Your task to perform on an android device: turn off javascript in the chrome app Image 0: 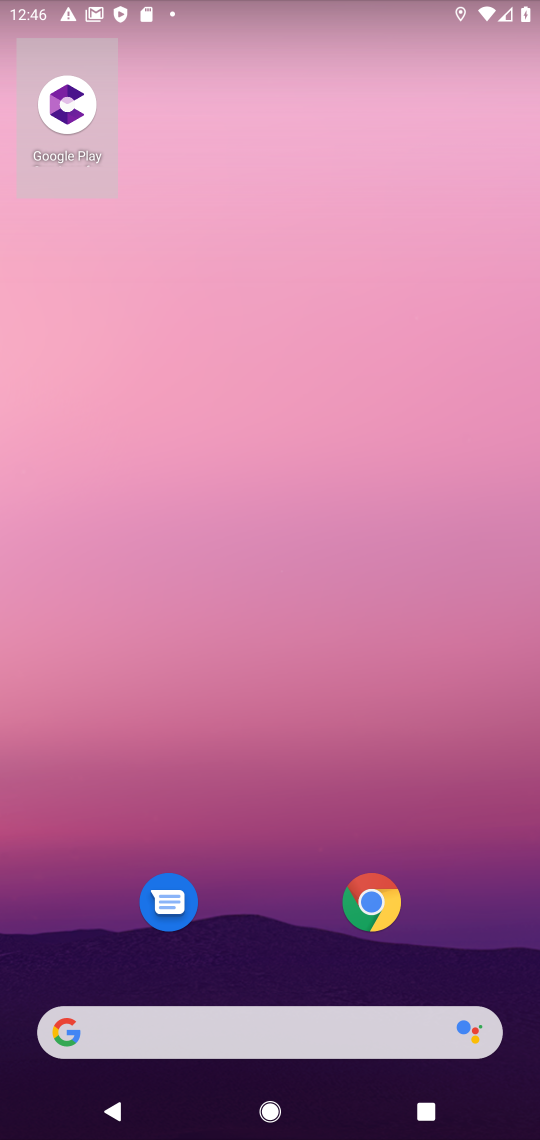
Step 0: click (359, 907)
Your task to perform on an android device: turn off javascript in the chrome app Image 1: 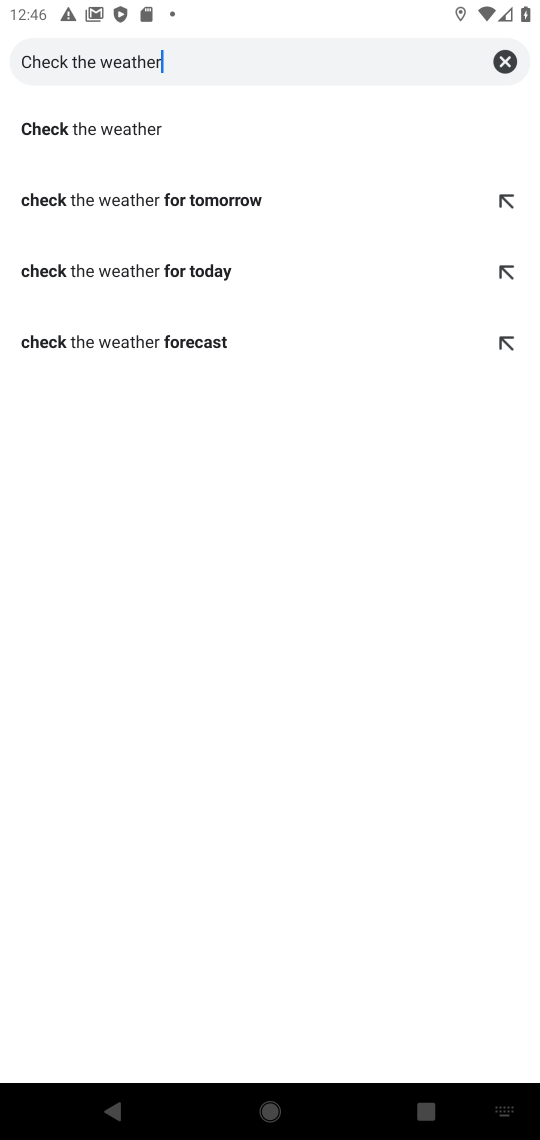
Step 1: press home button
Your task to perform on an android device: turn off javascript in the chrome app Image 2: 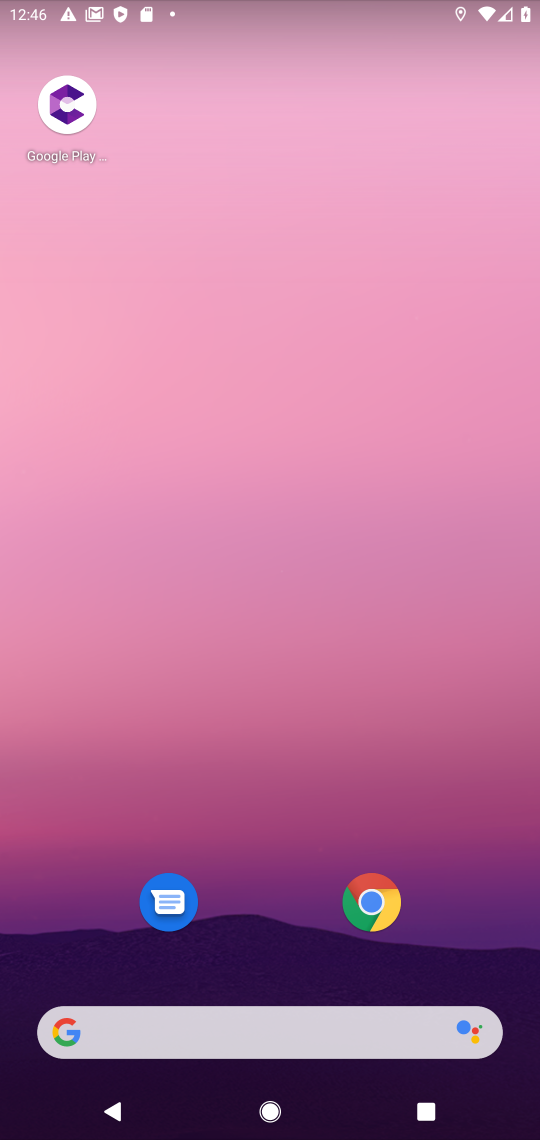
Step 2: click (380, 903)
Your task to perform on an android device: turn off javascript in the chrome app Image 3: 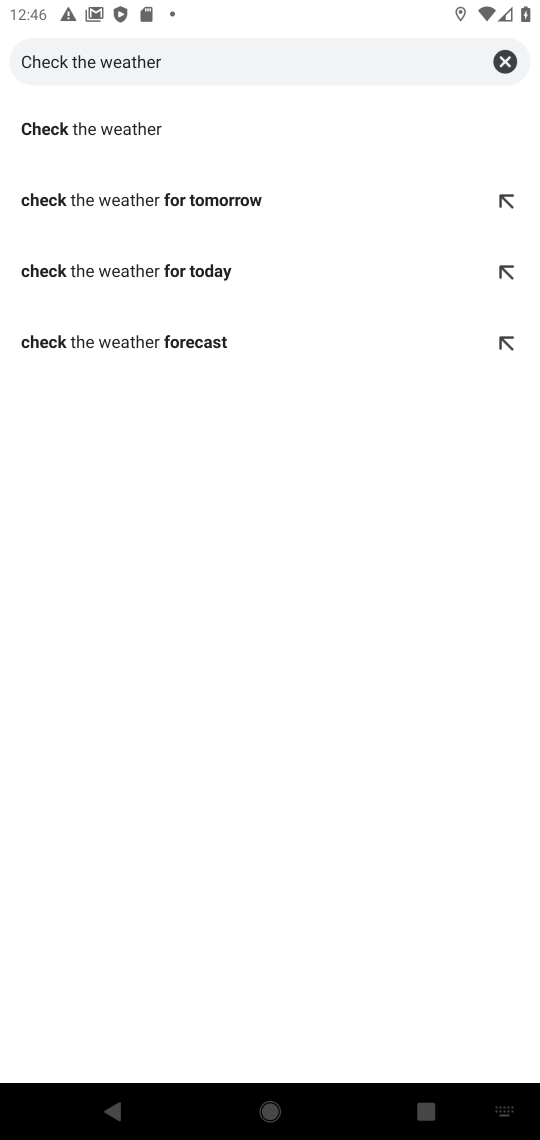
Step 3: task complete